Your task to perform on an android device: Show me recent news Image 0: 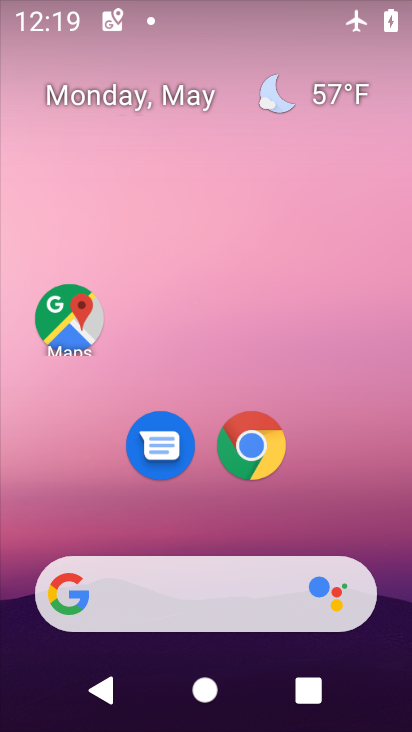
Step 0: click (125, 600)
Your task to perform on an android device: Show me recent news Image 1: 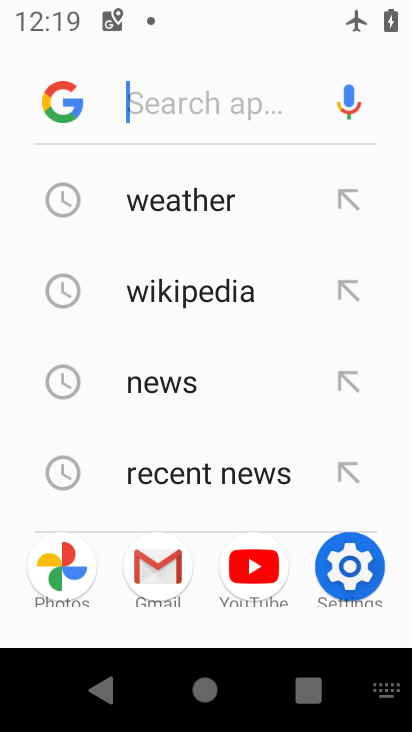
Step 1: click (260, 471)
Your task to perform on an android device: Show me recent news Image 2: 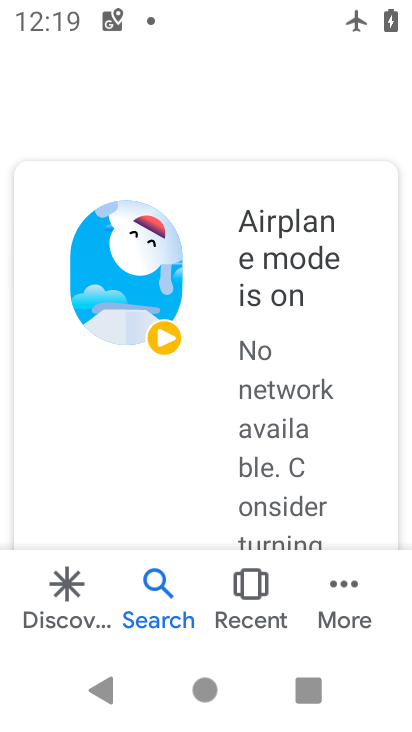
Step 2: drag from (352, 182) to (316, 566)
Your task to perform on an android device: Show me recent news Image 3: 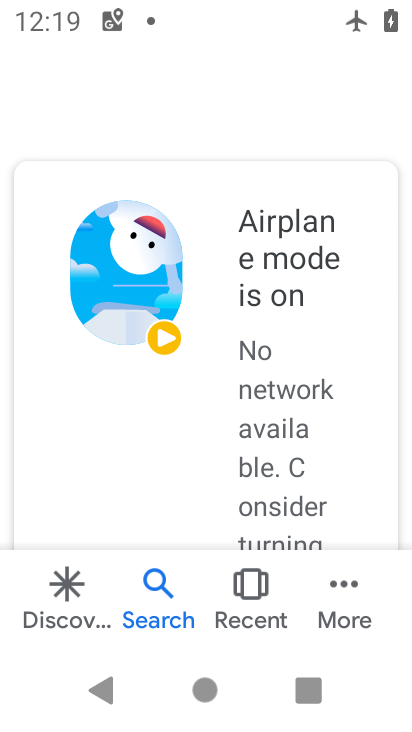
Step 3: drag from (174, 3) to (175, 470)
Your task to perform on an android device: Show me recent news Image 4: 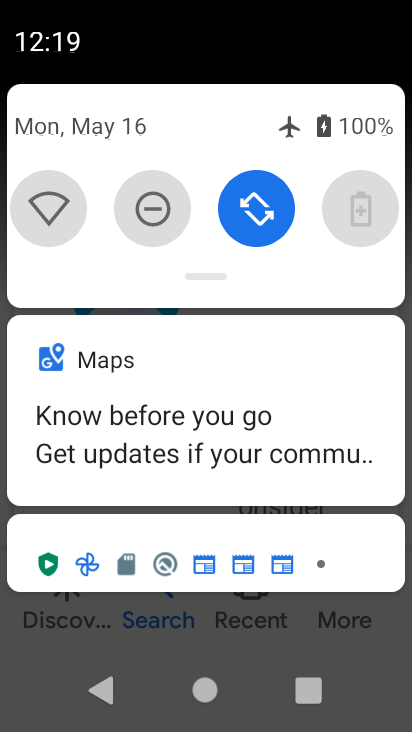
Step 4: drag from (332, 198) to (91, 189)
Your task to perform on an android device: Show me recent news Image 5: 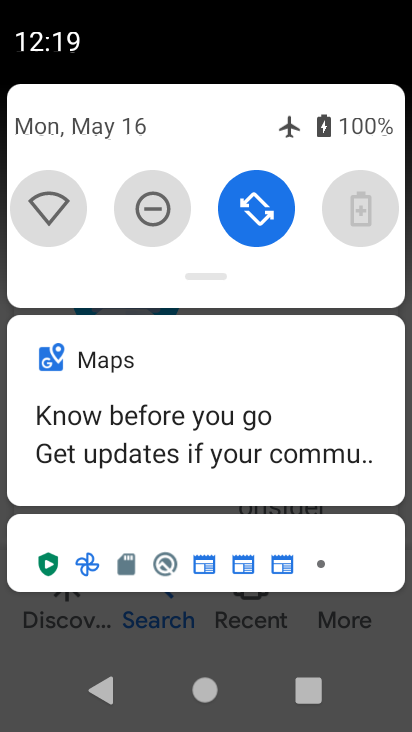
Step 5: drag from (262, 243) to (279, 602)
Your task to perform on an android device: Show me recent news Image 6: 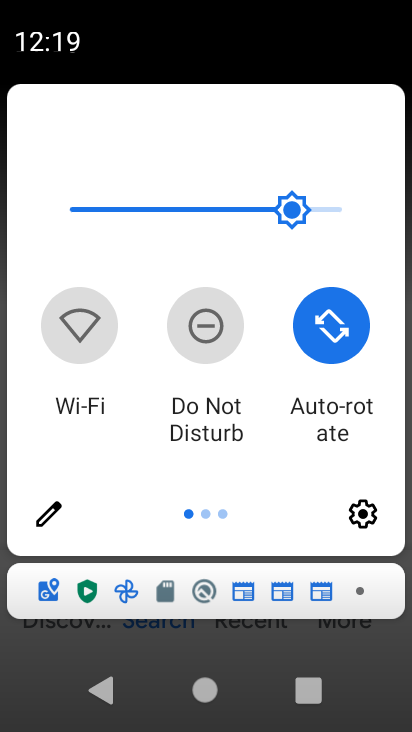
Step 6: drag from (355, 441) to (58, 451)
Your task to perform on an android device: Show me recent news Image 7: 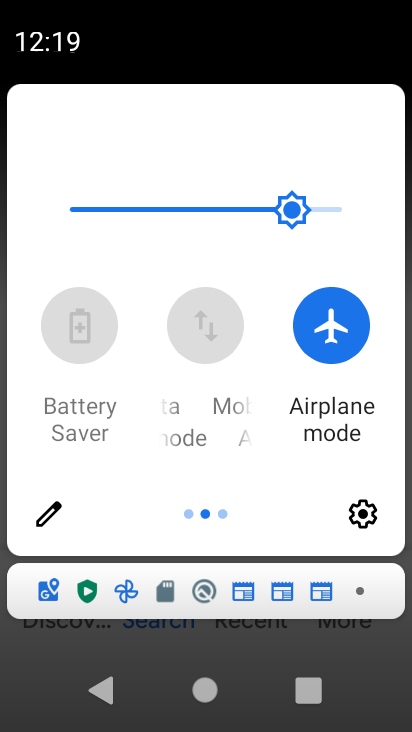
Step 7: click (324, 330)
Your task to perform on an android device: Show me recent news Image 8: 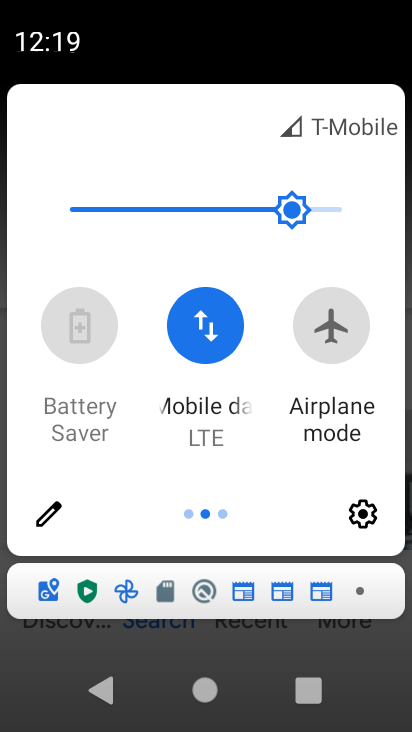
Step 8: drag from (143, 449) to (363, 434)
Your task to perform on an android device: Show me recent news Image 9: 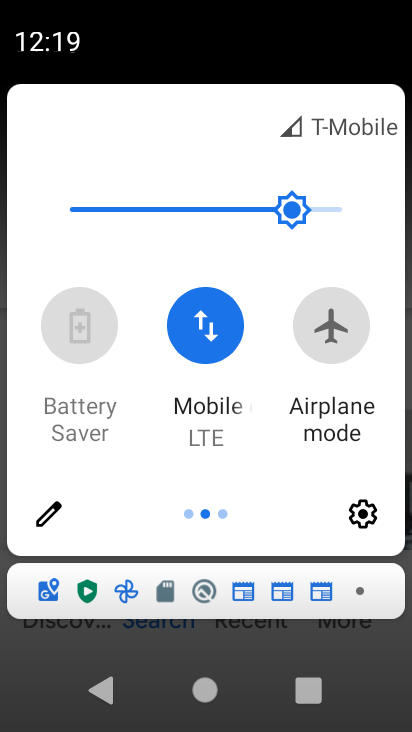
Step 9: drag from (72, 439) to (399, 430)
Your task to perform on an android device: Show me recent news Image 10: 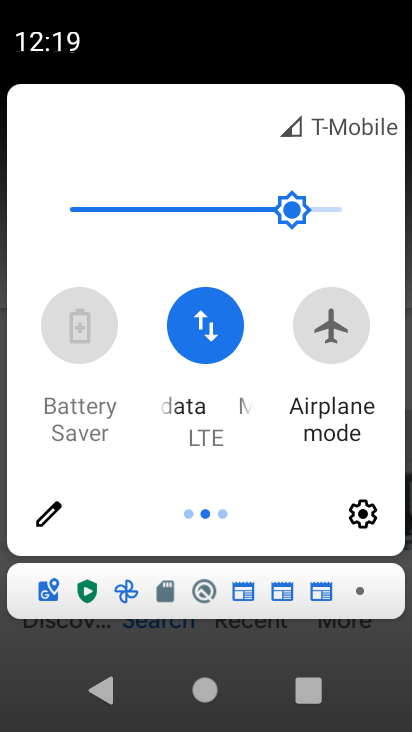
Step 10: drag from (71, 458) to (362, 453)
Your task to perform on an android device: Show me recent news Image 11: 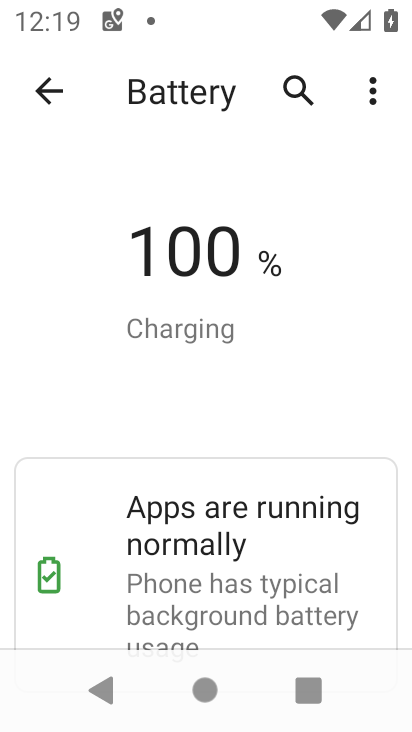
Step 11: press home button
Your task to perform on an android device: Show me recent news Image 12: 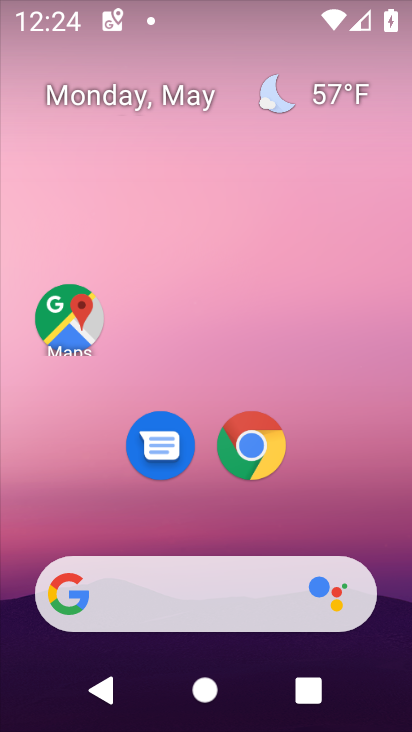
Step 12: click (202, 592)
Your task to perform on an android device: Show me recent news Image 13: 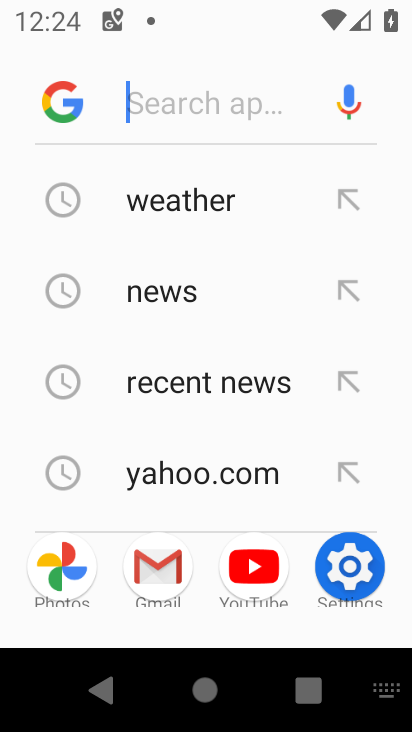
Step 13: click (168, 378)
Your task to perform on an android device: Show me recent news Image 14: 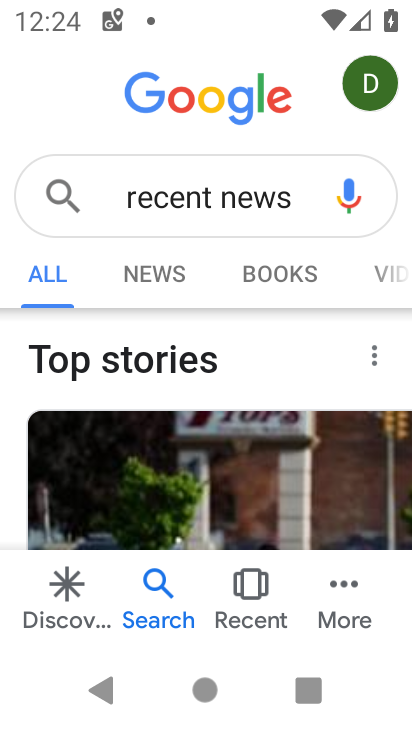
Step 14: click (168, 378)
Your task to perform on an android device: Show me recent news Image 15: 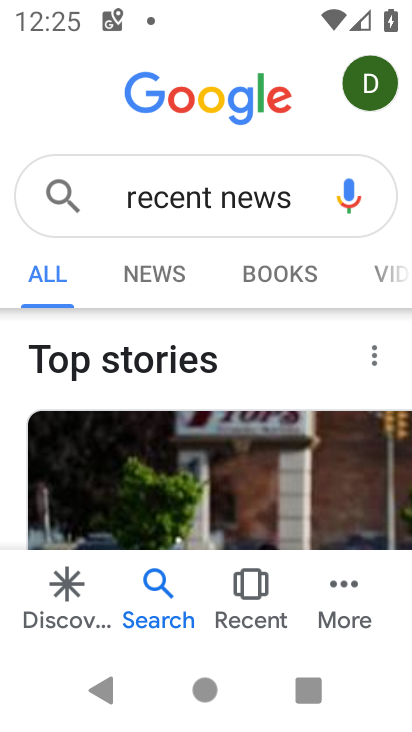
Step 15: task complete